Your task to perform on an android device: Play the last video I watched on Youtube Image 0: 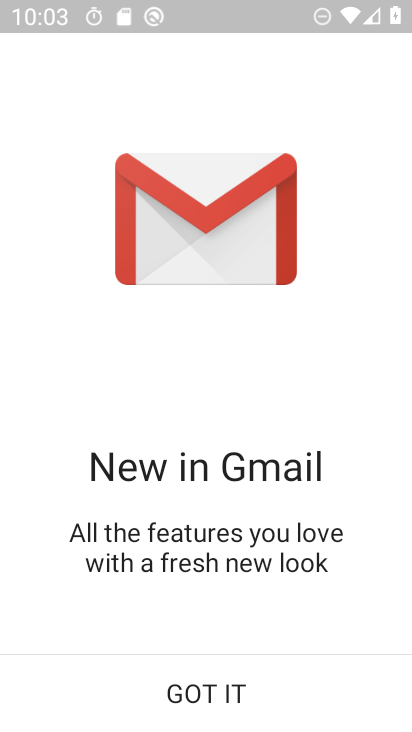
Step 0: press home button
Your task to perform on an android device: Play the last video I watched on Youtube Image 1: 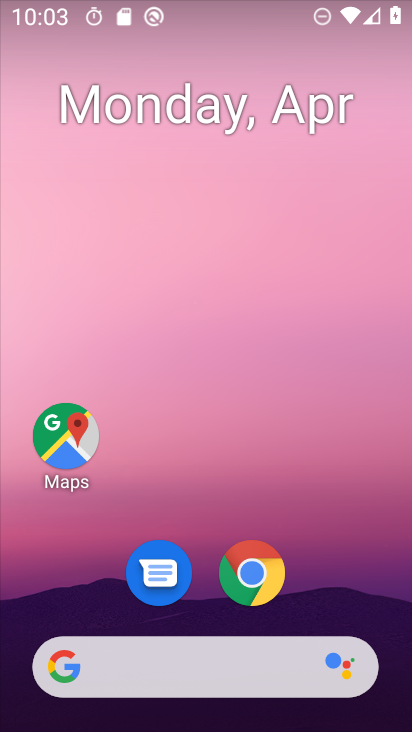
Step 1: drag from (368, 601) to (341, 58)
Your task to perform on an android device: Play the last video I watched on Youtube Image 2: 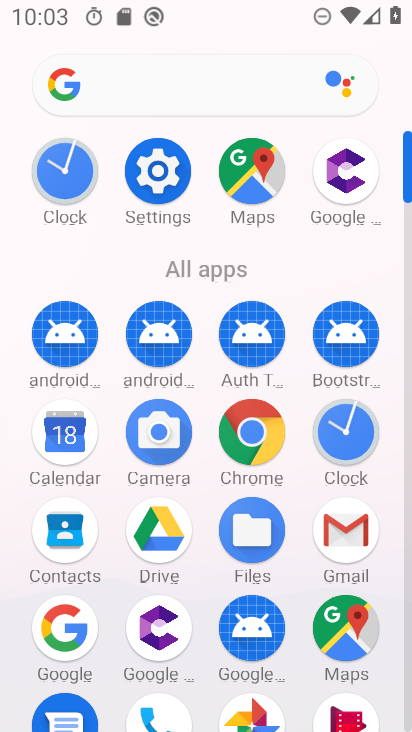
Step 2: drag from (411, 544) to (402, 177)
Your task to perform on an android device: Play the last video I watched on Youtube Image 3: 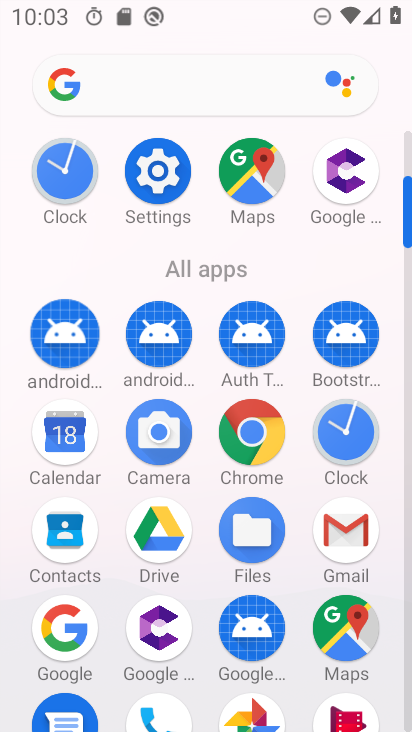
Step 3: click (86, 672)
Your task to perform on an android device: Play the last video I watched on Youtube Image 4: 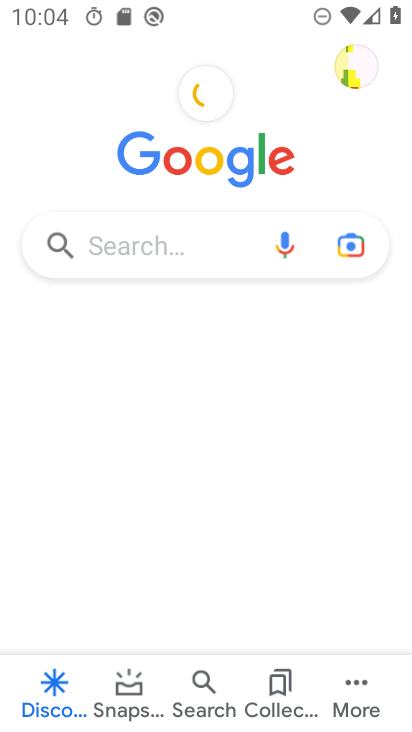
Step 4: press home button
Your task to perform on an android device: Play the last video I watched on Youtube Image 5: 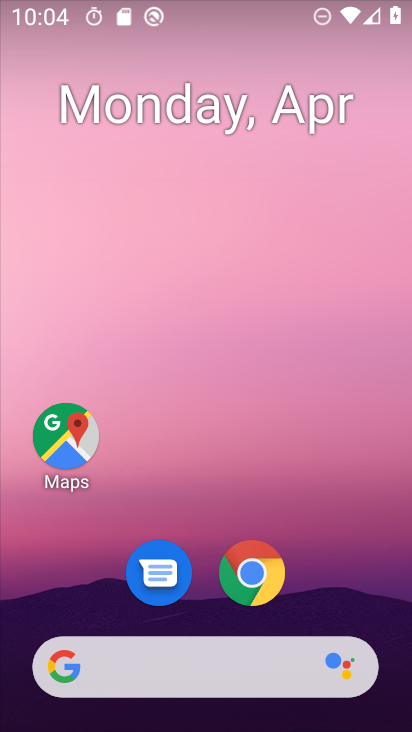
Step 5: drag from (374, 602) to (379, 68)
Your task to perform on an android device: Play the last video I watched on Youtube Image 6: 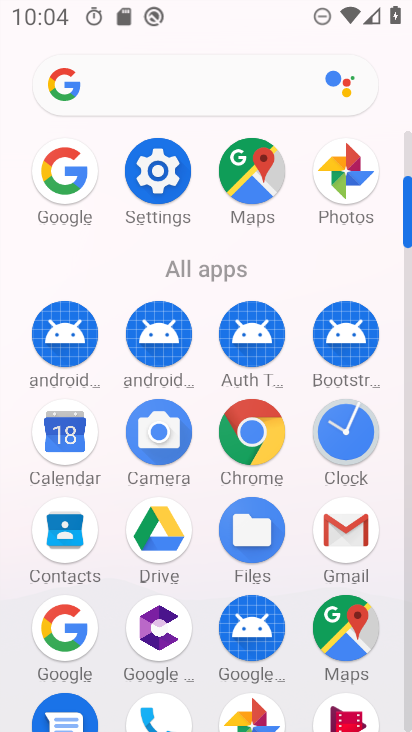
Step 6: drag from (390, 547) to (411, 230)
Your task to perform on an android device: Play the last video I watched on Youtube Image 7: 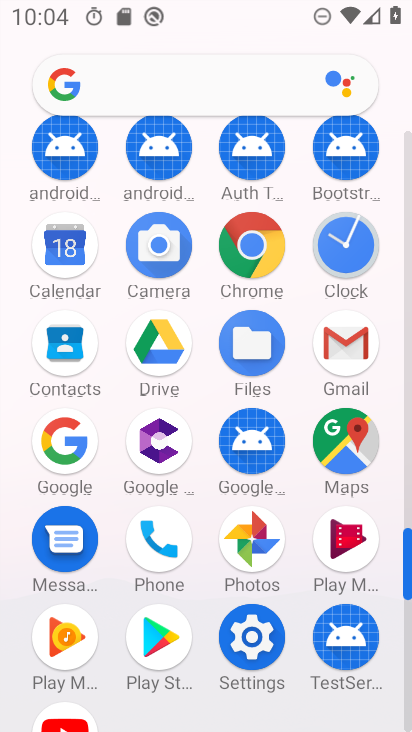
Step 7: drag from (389, 636) to (391, 310)
Your task to perform on an android device: Play the last video I watched on Youtube Image 8: 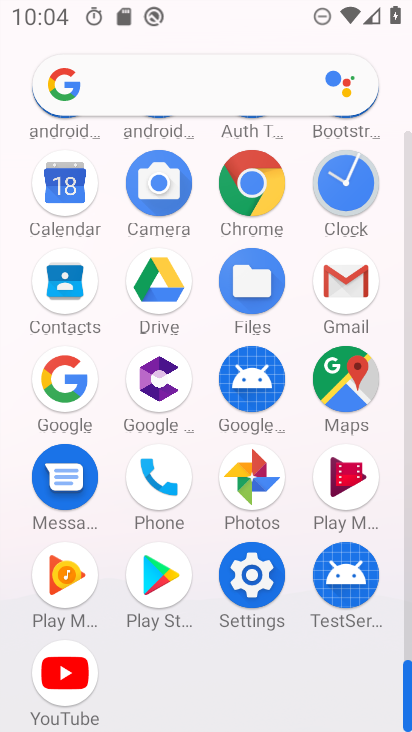
Step 8: click (63, 680)
Your task to perform on an android device: Play the last video I watched on Youtube Image 9: 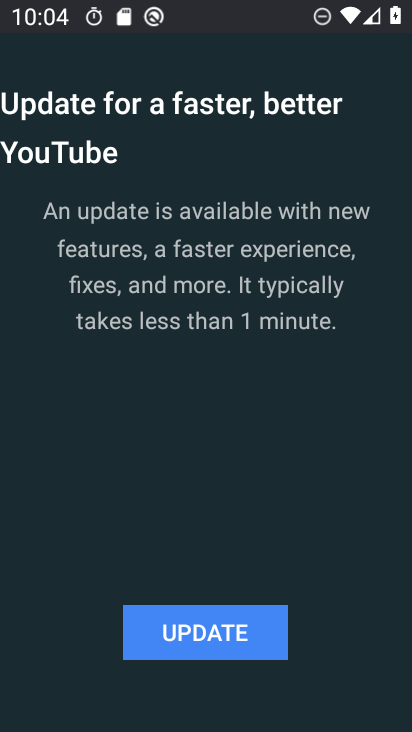
Step 9: click (206, 638)
Your task to perform on an android device: Play the last video I watched on Youtube Image 10: 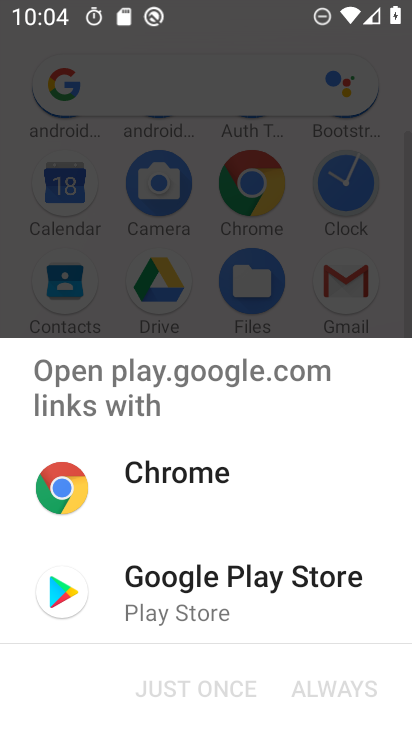
Step 10: click (149, 480)
Your task to perform on an android device: Play the last video I watched on Youtube Image 11: 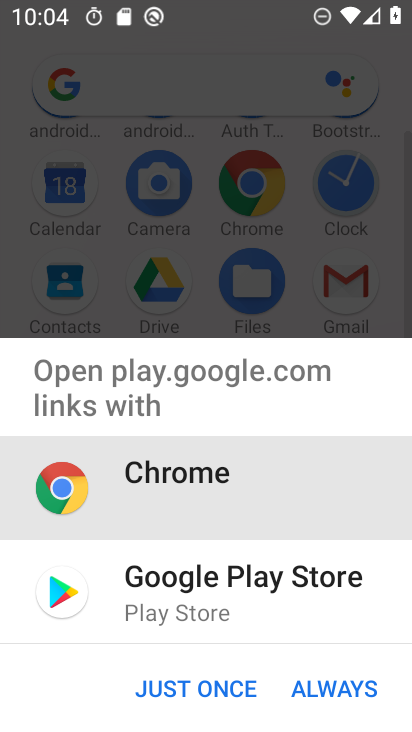
Step 11: click (238, 697)
Your task to perform on an android device: Play the last video I watched on Youtube Image 12: 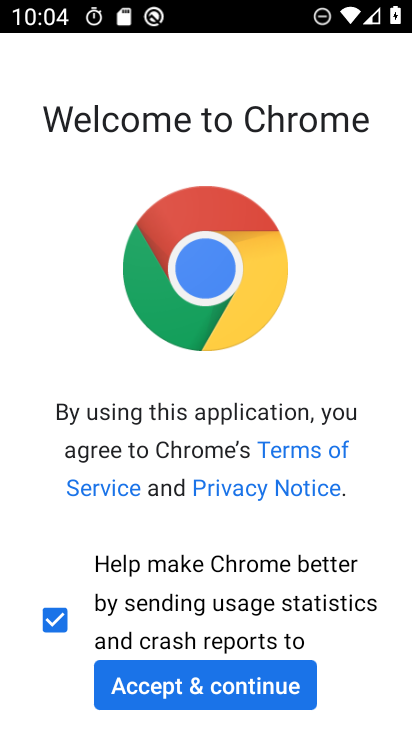
Step 12: click (233, 686)
Your task to perform on an android device: Play the last video I watched on Youtube Image 13: 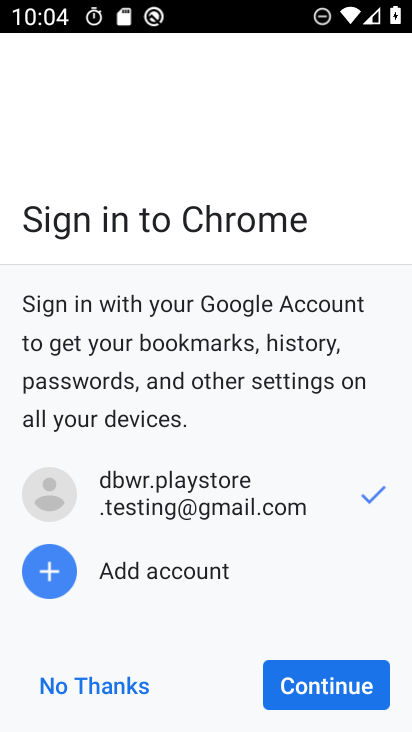
Step 13: click (62, 666)
Your task to perform on an android device: Play the last video I watched on Youtube Image 14: 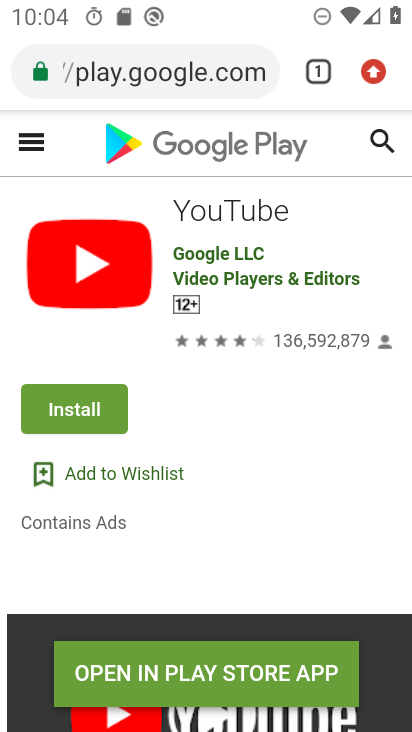
Step 14: drag from (206, 498) to (238, 264)
Your task to perform on an android device: Play the last video I watched on Youtube Image 15: 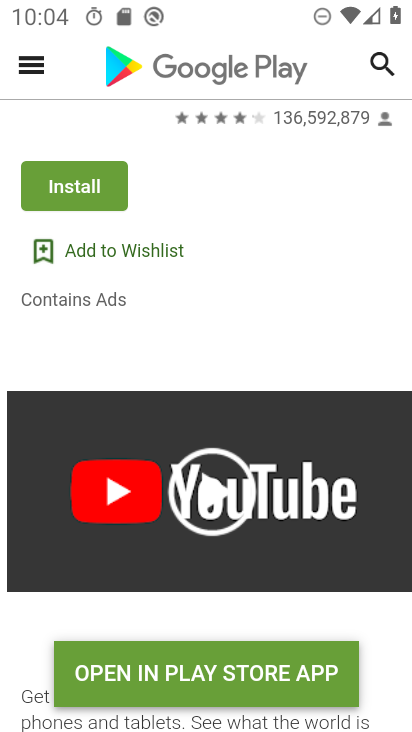
Step 15: click (92, 188)
Your task to perform on an android device: Play the last video I watched on Youtube Image 16: 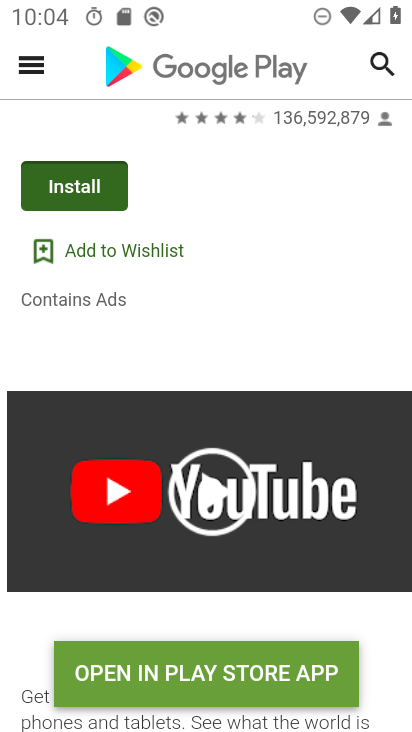
Step 16: drag from (397, 191) to (374, 443)
Your task to perform on an android device: Play the last video I watched on Youtube Image 17: 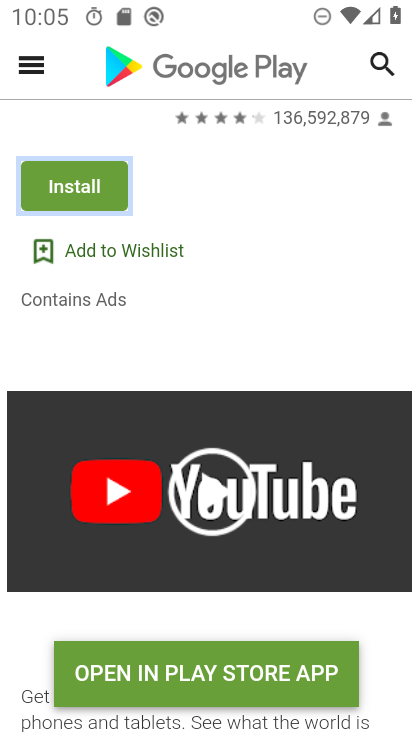
Step 17: press home button
Your task to perform on an android device: Play the last video I watched on Youtube Image 18: 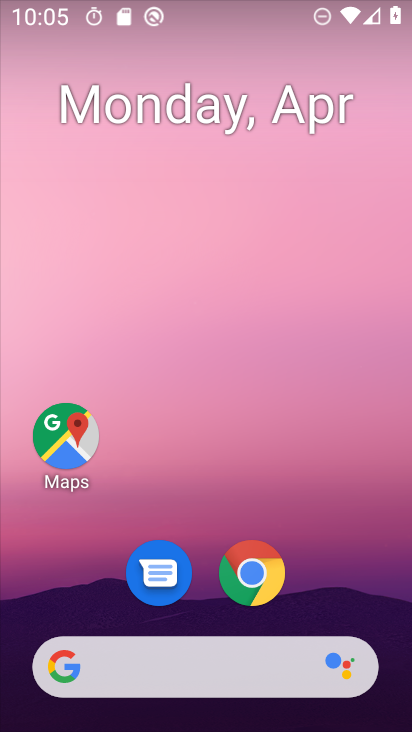
Step 18: drag from (323, 239) to (360, 43)
Your task to perform on an android device: Play the last video I watched on Youtube Image 19: 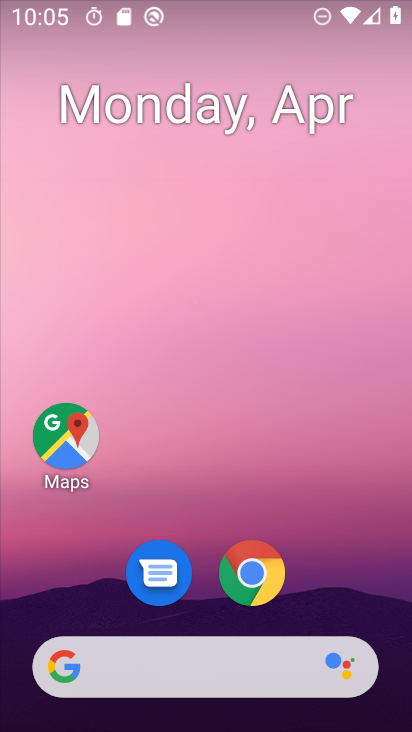
Step 19: drag from (387, 599) to (402, 4)
Your task to perform on an android device: Play the last video I watched on Youtube Image 20: 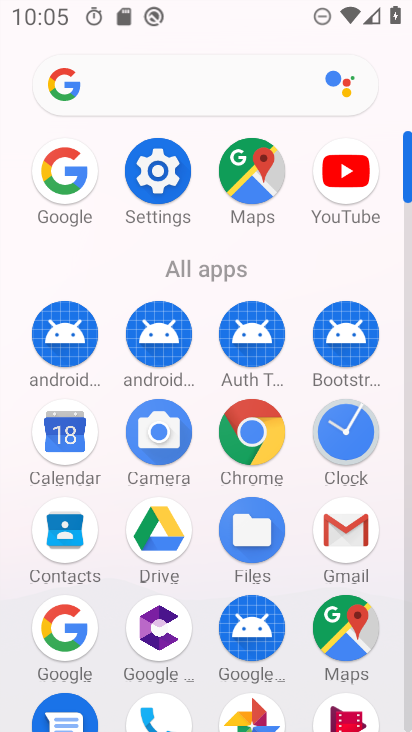
Step 20: click (338, 191)
Your task to perform on an android device: Play the last video I watched on Youtube Image 21: 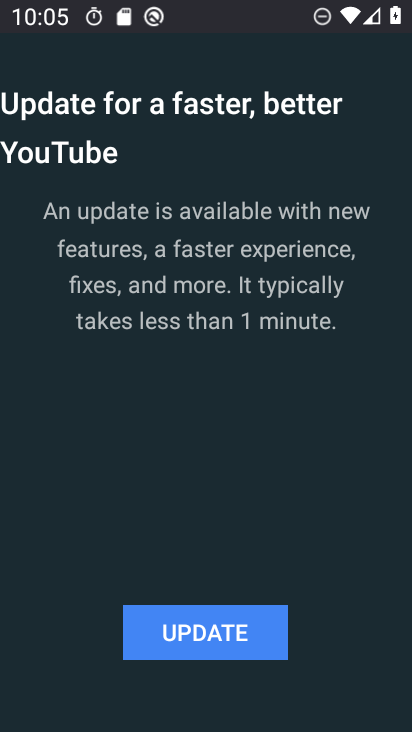
Step 21: click (216, 619)
Your task to perform on an android device: Play the last video I watched on Youtube Image 22: 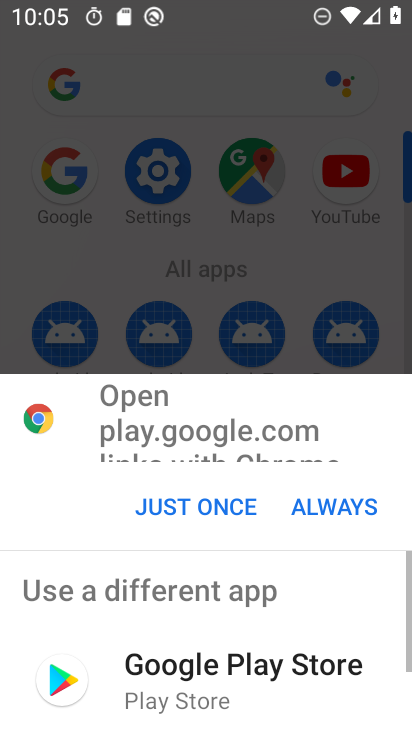
Step 22: drag from (215, 623) to (204, 354)
Your task to perform on an android device: Play the last video I watched on Youtube Image 23: 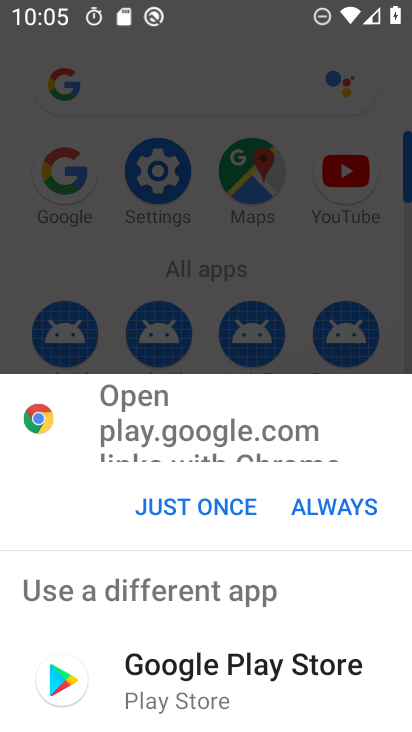
Step 23: click (184, 677)
Your task to perform on an android device: Play the last video I watched on Youtube Image 24: 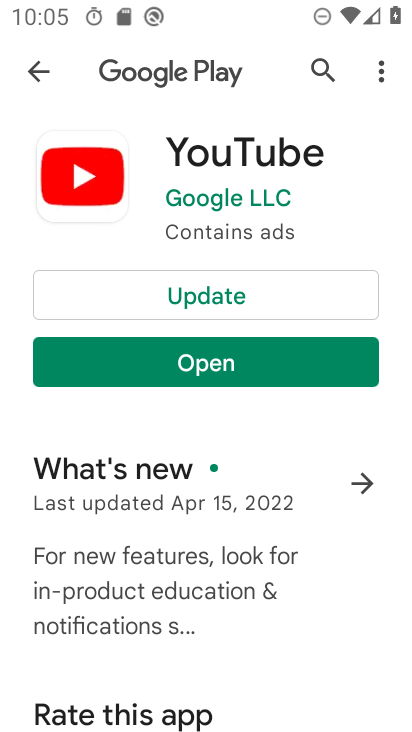
Step 24: click (188, 371)
Your task to perform on an android device: Play the last video I watched on Youtube Image 25: 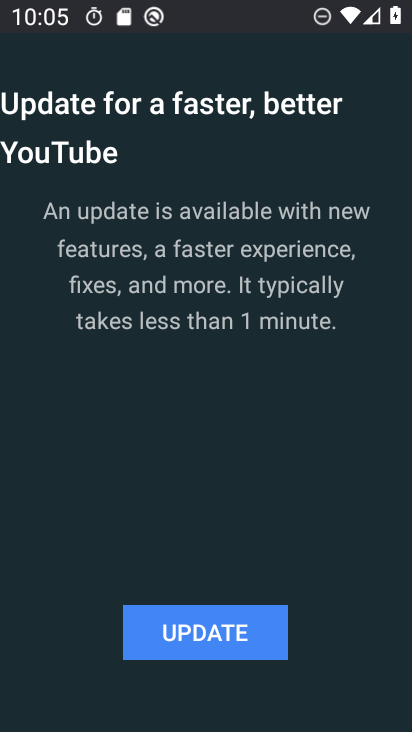
Step 25: click (198, 637)
Your task to perform on an android device: Play the last video I watched on Youtube Image 26: 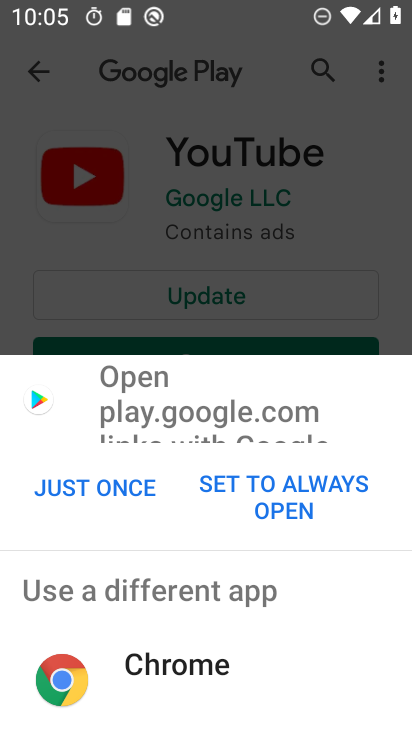
Step 26: click (99, 486)
Your task to perform on an android device: Play the last video I watched on Youtube Image 27: 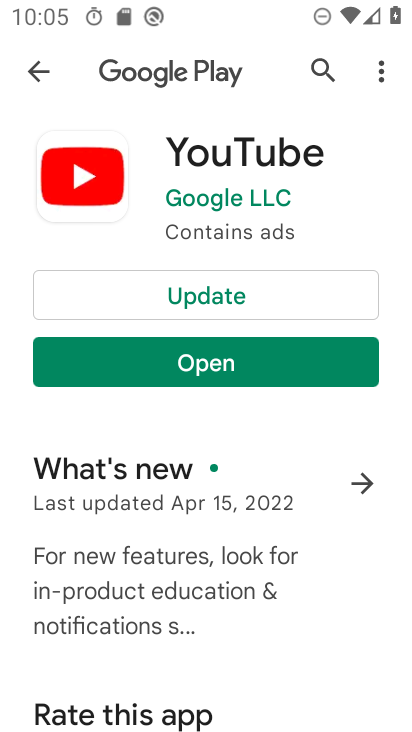
Step 27: click (238, 276)
Your task to perform on an android device: Play the last video I watched on Youtube Image 28: 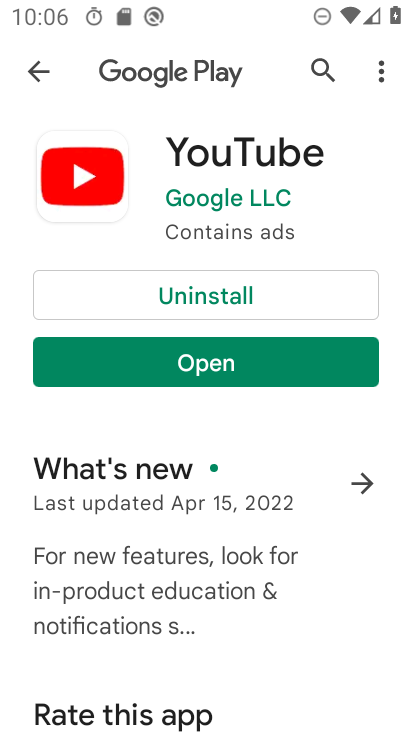
Step 28: click (230, 394)
Your task to perform on an android device: Play the last video I watched on Youtube Image 29: 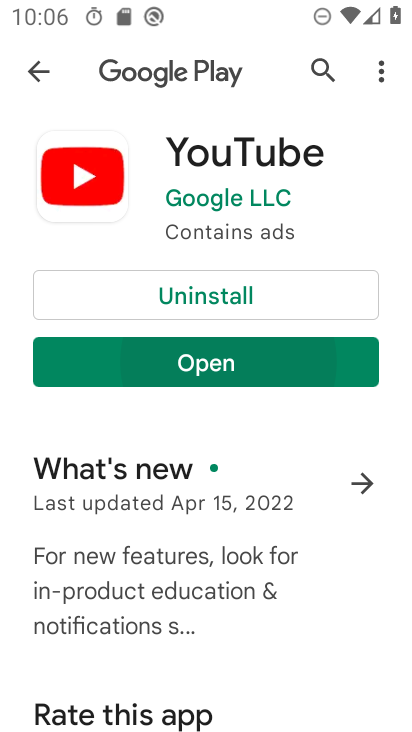
Step 29: click (213, 359)
Your task to perform on an android device: Play the last video I watched on Youtube Image 30: 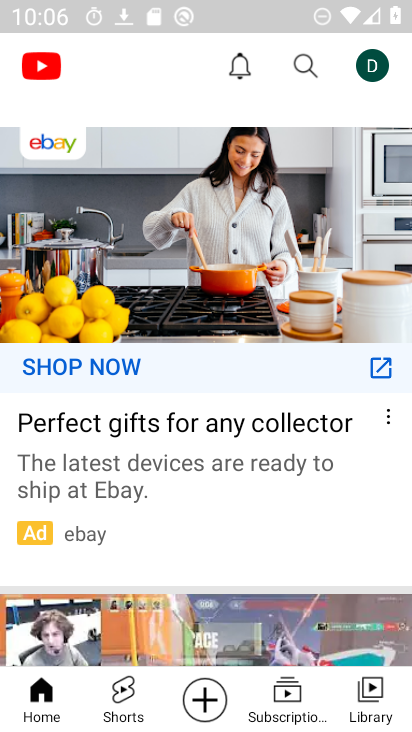
Step 30: drag from (167, 586) to (147, 288)
Your task to perform on an android device: Play the last video I watched on Youtube Image 31: 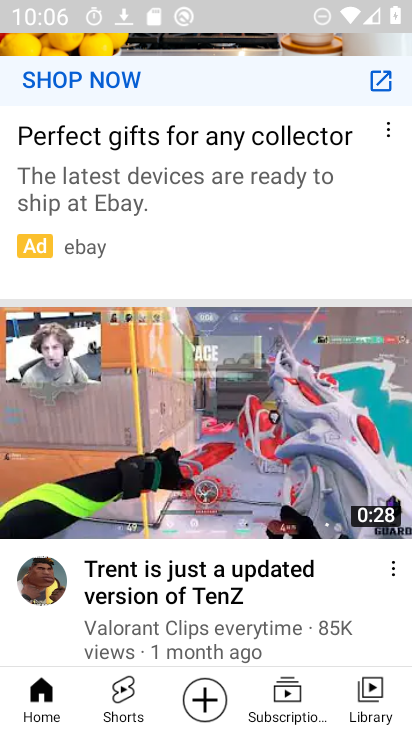
Step 31: drag from (190, 410) to (209, 579)
Your task to perform on an android device: Play the last video I watched on Youtube Image 32: 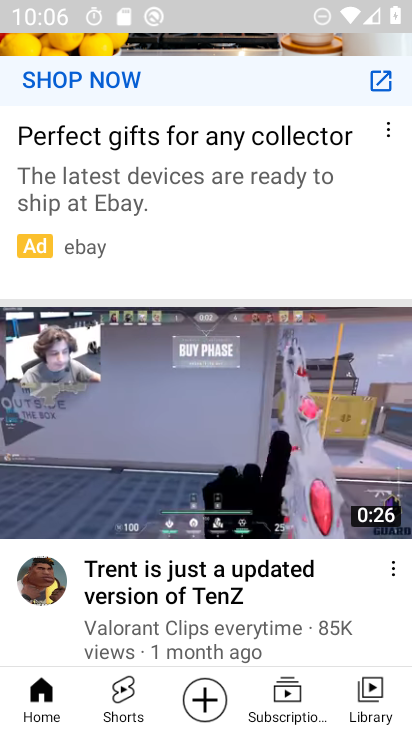
Step 32: drag from (217, 377) to (227, 581)
Your task to perform on an android device: Play the last video I watched on Youtube Image 33: 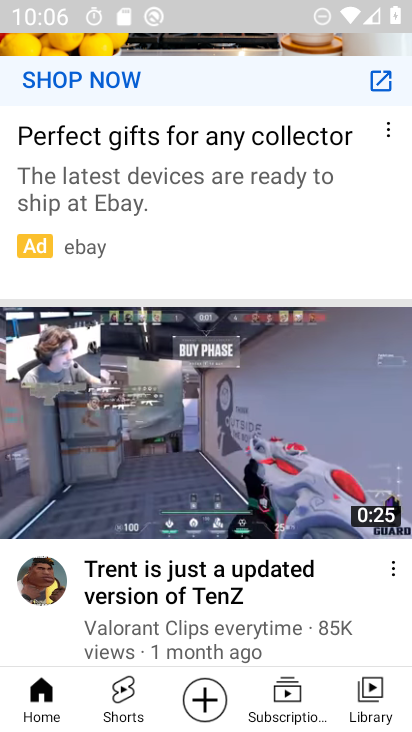
Step 33: drag from (216, 418) to (252, 577)
Your task to perform on an android device: Play the last video I watched on Youtube Image 34: 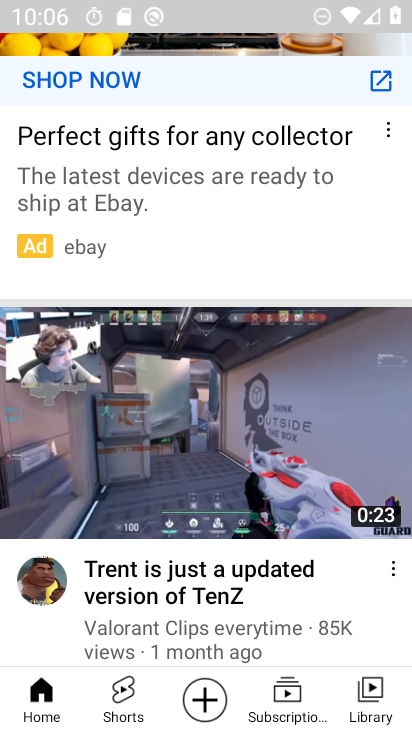
Step 34: drag from (264, 185) to (245, 614)
Your task to perform on an android device: Play the last video I watched on Youtube Image 35: 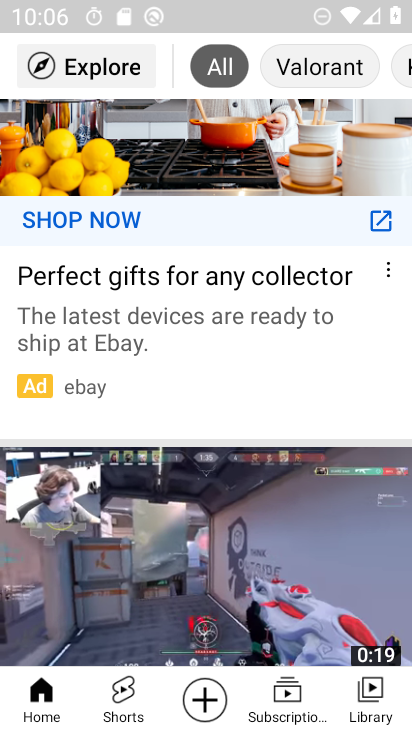
Step 35: drag from (266, 306) to (276, 608)
Your task to perform on an android device: Play the last video I watched on Youtube Image 36: 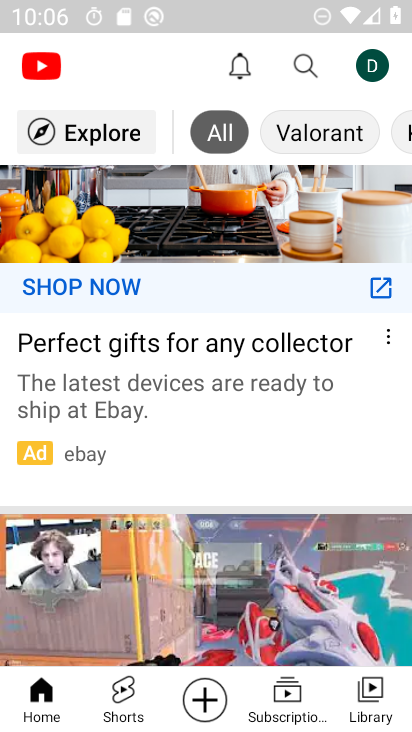
Step 36: click (362, 703)
Your task to perform on an android device: Play the last video I watched on Youtube Image 37: 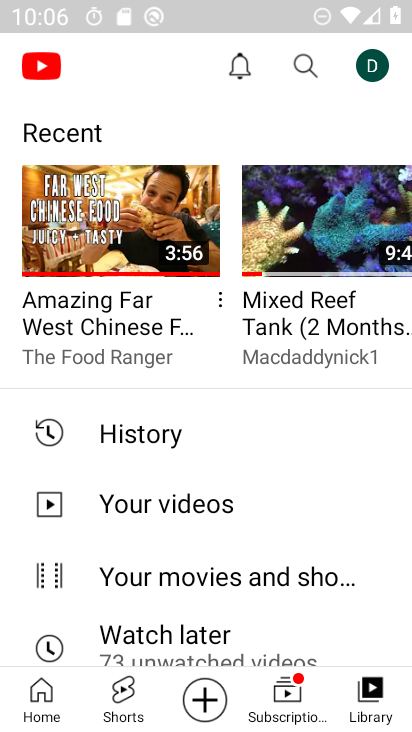
Step 37: click (110, 234)
Your task to perform on an android device: Play the last video I watched on Youtube Image 38: 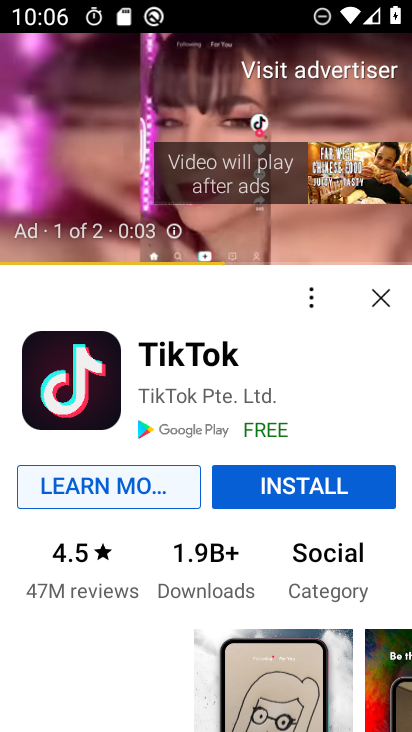
Step 38: click (381, 295)
Your task to perform on an android device: Play the last video I watched on Youtube Image 39: 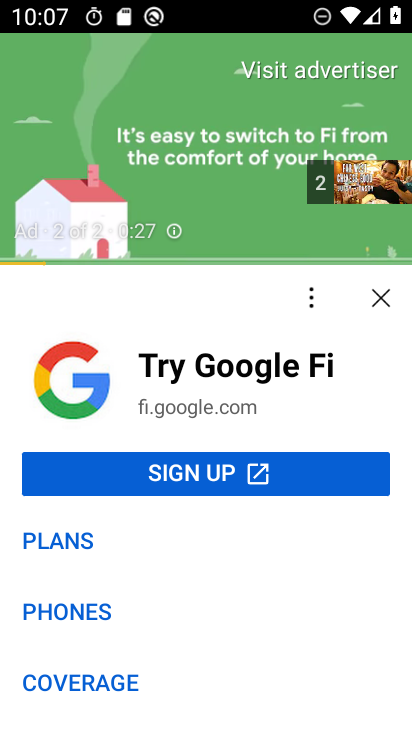
Step 39: task complete